Your task to perform on an android device: Show me productivity apps on the Play Store Image 0: 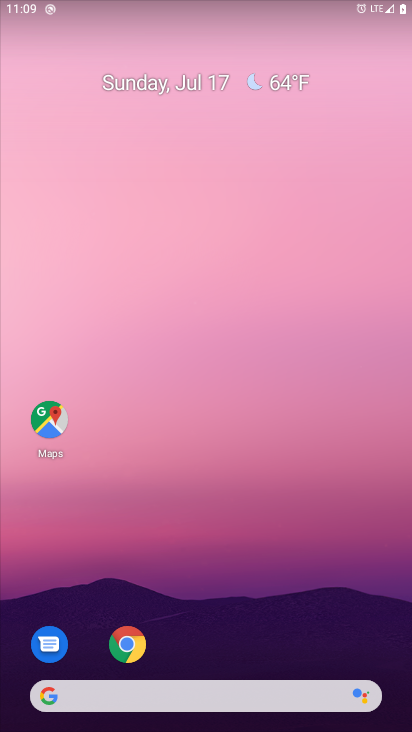
Step 0: press home button
Your task to perform on an android device: Show me productivity apps on the Play Store Image 1: 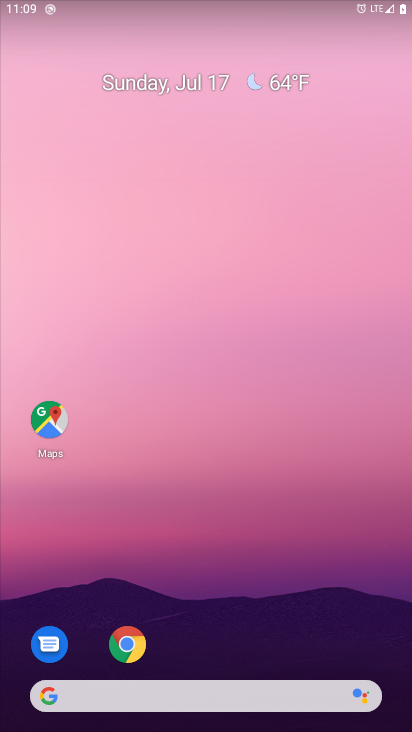
Step 1: drag from (275, 630) to (234, 138)
Your task to perform on an android device: Show me productivity apps on the Play Store Image 2: 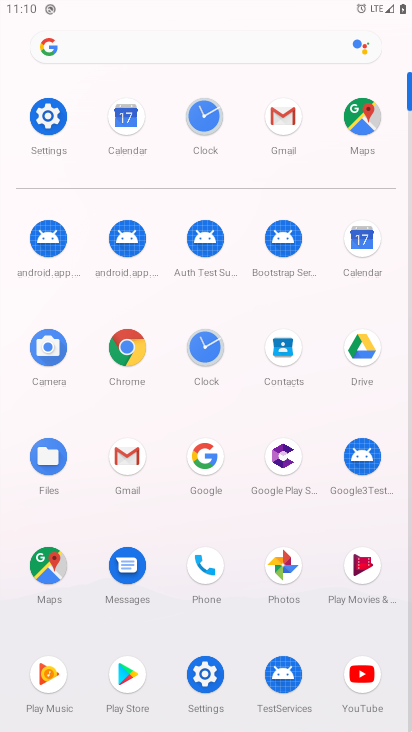
Step 2: drag from (225, 618) to (229, 144)
Your task to perform on an android device: Show me productivity apps on the Play Store Image 3: 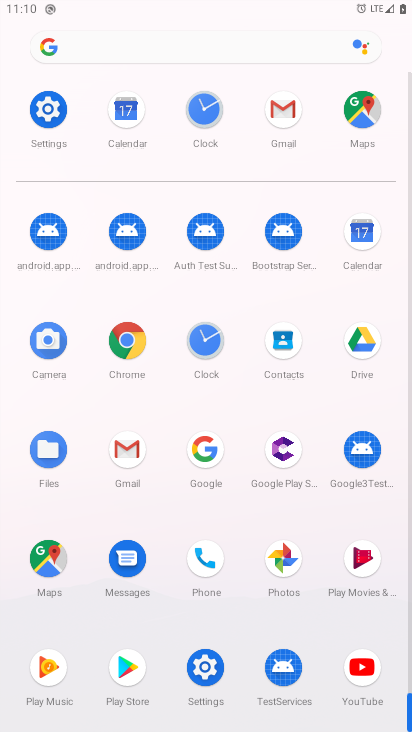
Step 3: click (121, 666)
Your task to perform on an android device: Show me productivity apps on the Play Store Image 4: 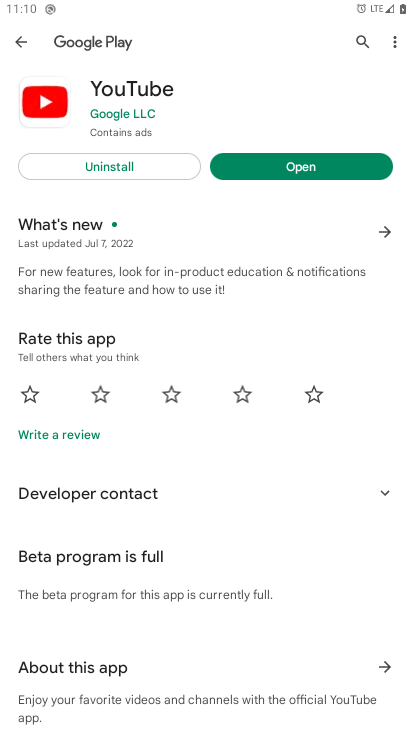
Step 4: click (22, 33)
Your task to perform on an android device: Show me productivity apps on the Play Store Image 5: 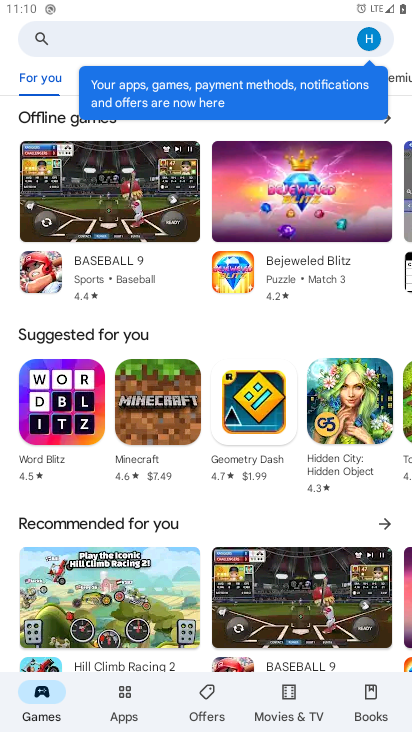
Step 5: drag from (392, 78) to (79, 76)
Your task to perform on an android device: Show me productivity apps on the Play Store Image 6: 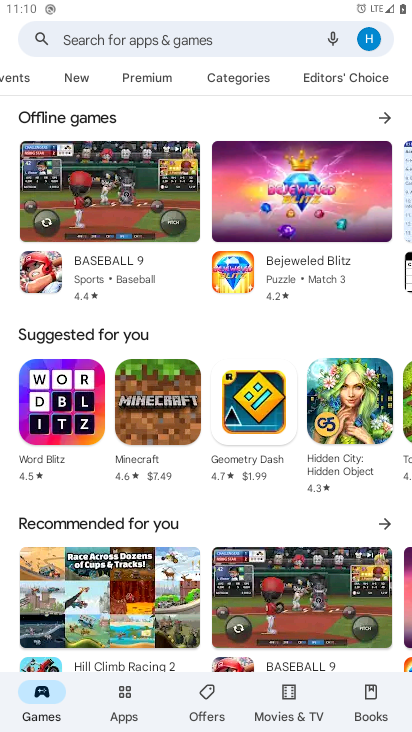
Step 6: click (115, 700)
Your task to perform on an android device: Show me productivity apps on the Play Store Image 7: 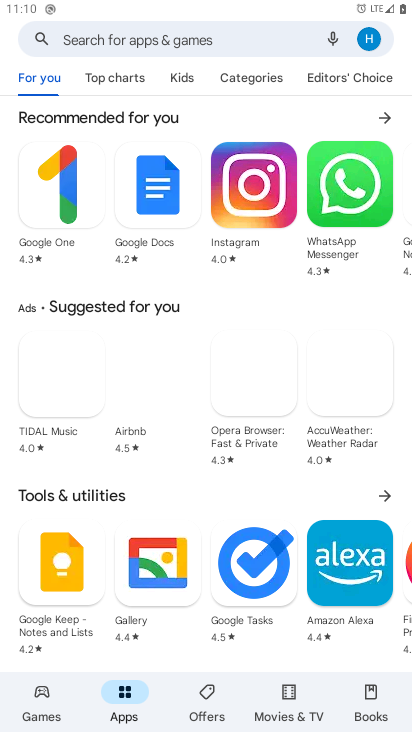
Step 7: click (258, 73)
Your task to perform on an android device: Show me productivity apps on the Play Store Image 8: 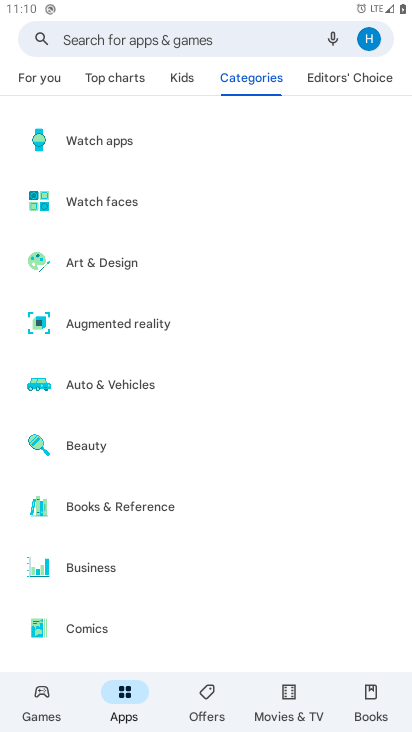
Step 8: drag from (207, 630) to (170, 153)
Your task to perform on an android device: Show me productivity apps on the Play Store Image 9: 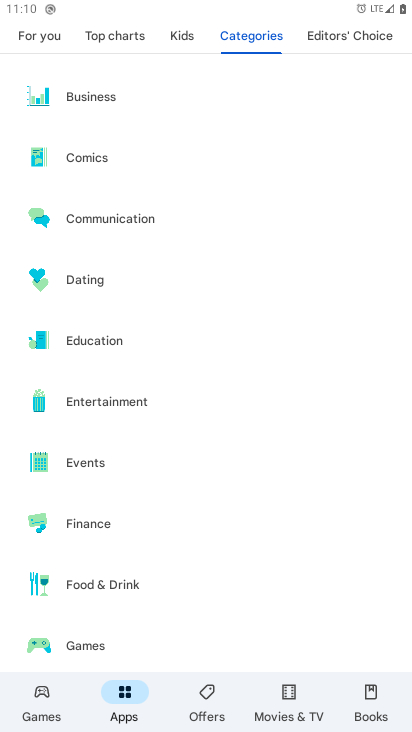
Step 9: drag from (212, 611) to (204, 111)
Your task to perform on an android device: Show me productivity apps on the Play Store Image 10: 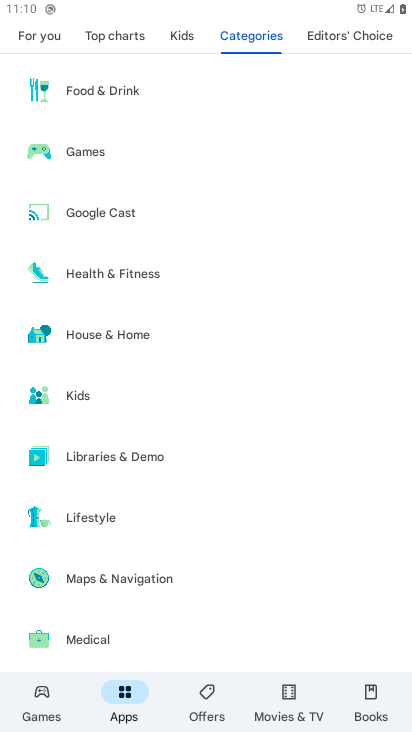
Step 10: drag from (165, 621) to (153, 58)
Your task to perform on an android device: Show me productivity apps on the Play Store Image 11: 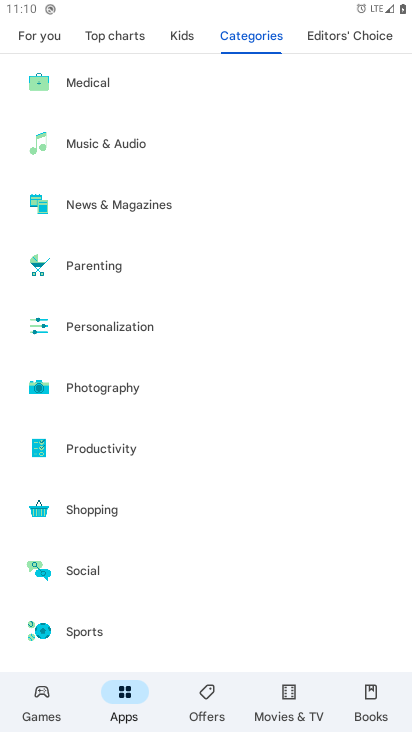
Step 11: click (97, 444)
Your task to perform on an android device: Show me productivity apps on the Play Store Image 12: 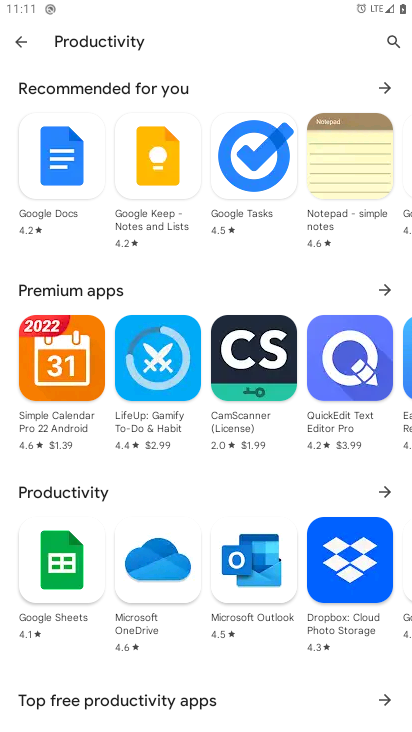
Step 12: task complete